Your task to perform on an android device: open app "WhatsApp Messenger" (install if not already installed), go to login, and select forgot password Image 0: 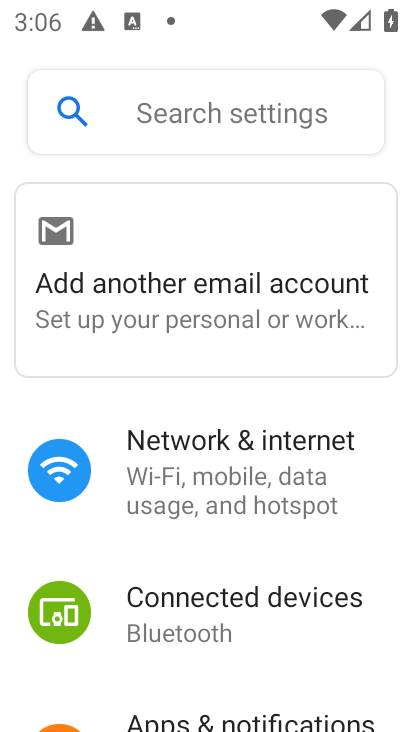
Step 0: press home button
Your task to perform on an android device: open app "WhatsApp Messenger" (install if not already installed), go to login, and select forgot password Image 1: 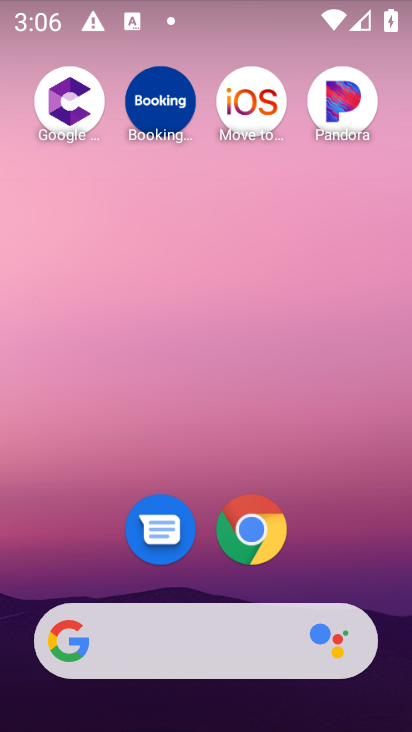
Step 1: drag from (338, 572) to (314, 7)
Your task to perform on an android device: open app "WhatsApp Messenger" (install if not already installed), go to login, and select forgot password Image 2: 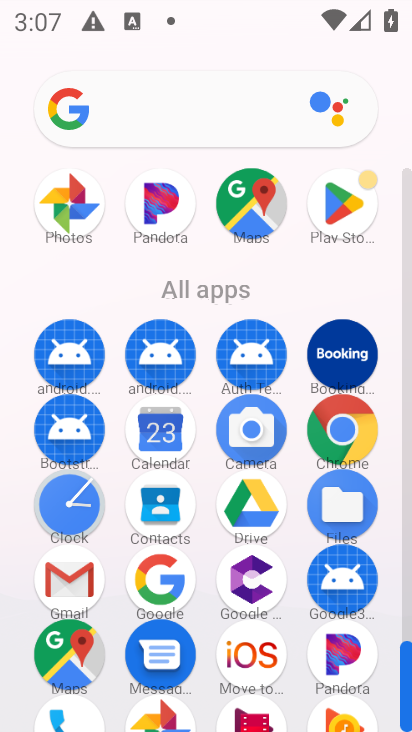
Step 2: click (327, 210)
Your task to perform on an android device: open app "WhatsApp Messenger" (install if not already installed), go to login, and select forgot password Image 3: 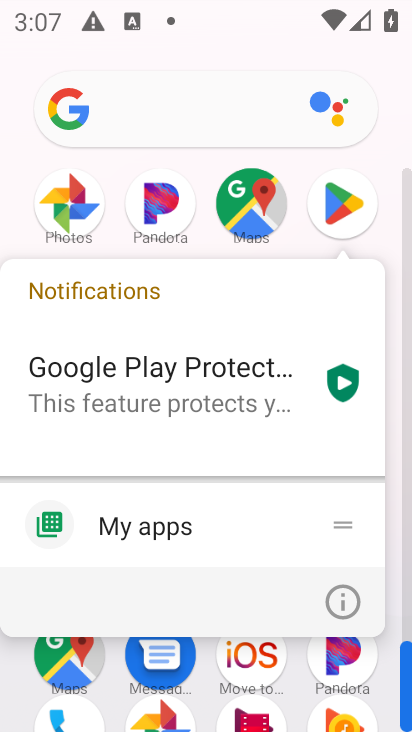
Step 3: click (327, 208)
Your task to perform on an android device: open app "WhatsApp Messenger" (install if not already installed), go to login, and select forgot password Image 4: 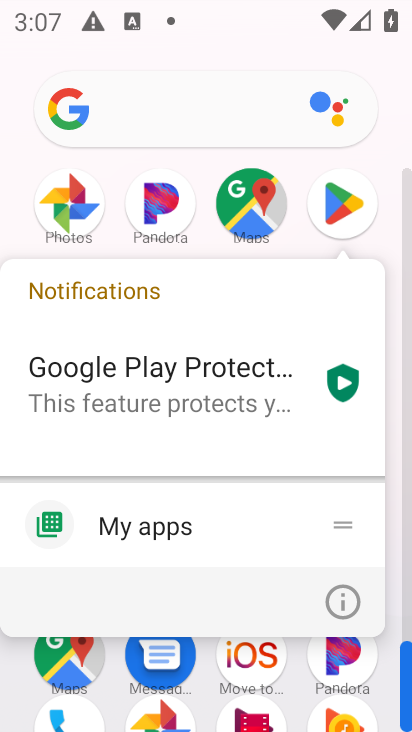
Step 4: click (346, 217)
Your task to perform on an android device: open app "WhatsApp Messenger" (install if not already installed), go to login, and select forgot password Image 5: 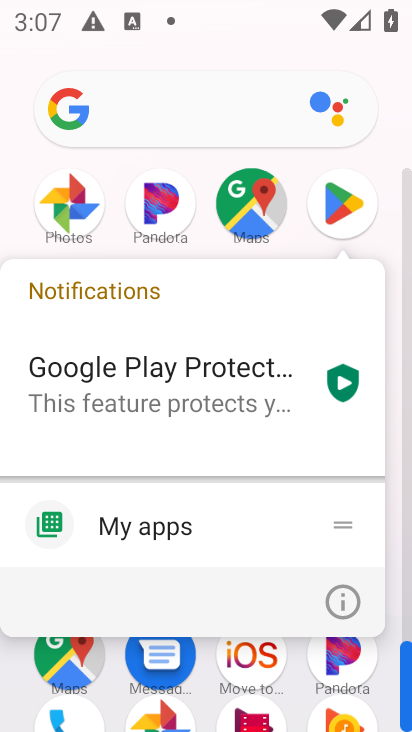
Step 5: click (347, 217)
Your task to perform on an android device: open app "WhatsApp Messenger" (install if not already installed), go to login, and select forgot password Image 6: 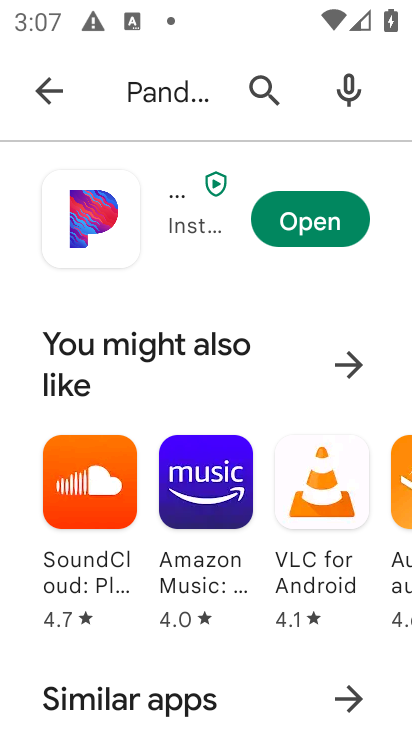
Step 6: press back button
Your task to perform on an android device: open app "WhatsApp Messenger" (install if not already installed), go to login, and select forgot password Image 7: 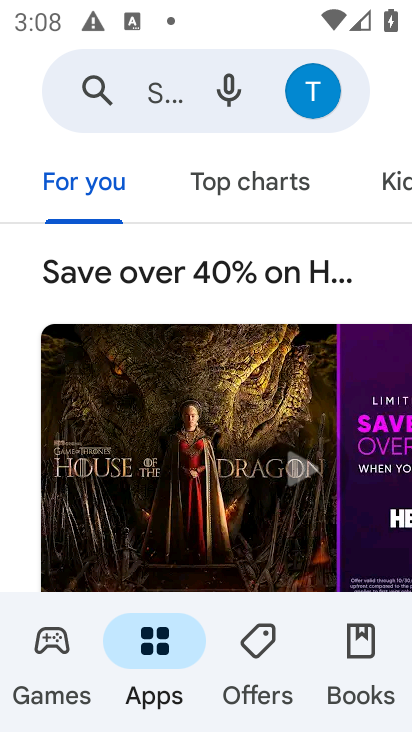
Step 7: click (152, 118)
Your task to perform on an android device: open app "WhatsApp Messenger" (install if not already installed), go to login, and select forgot password Image 8: 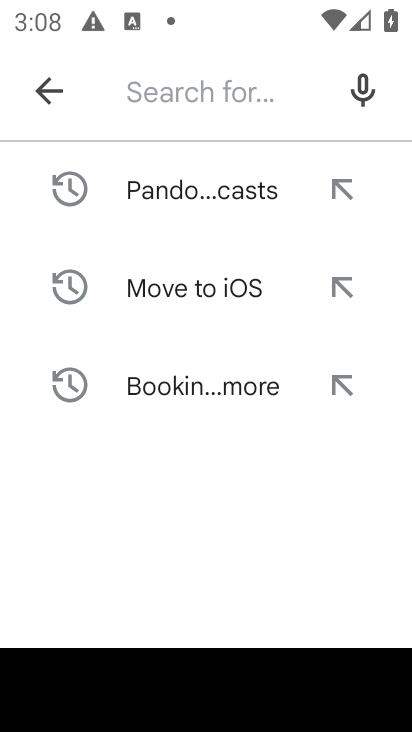
Step 8: type "WhatsApp Messenger"
Your task to perform on an android device: open app "WhatsApp Messenger" (install if not already installed), go to login, and select forgot password Image 9: 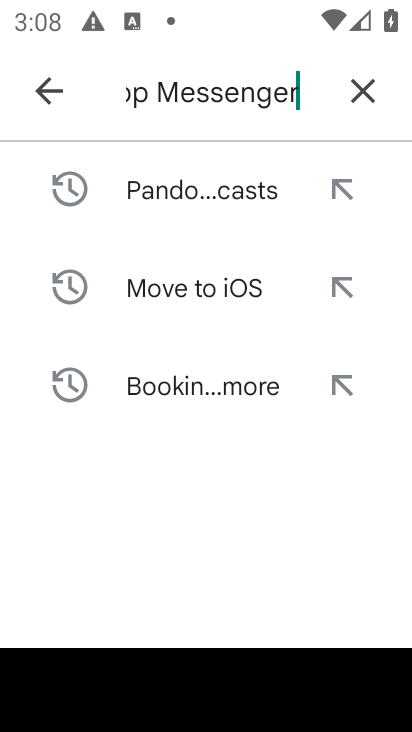
Step 9: press enter
Your task to perform on an android device: open app "WhatsApp Messenger" (install if not already installed), go to login, and select forgot password Image 10: 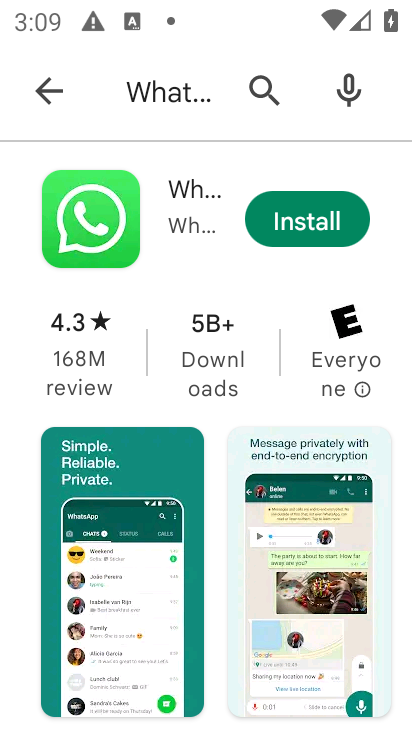
Step 10: click (289, 224)
Your task to perform on an android device: open app "WhatsApp Messenger" (install if not already installed), go to login, and select forgot password Image 11: 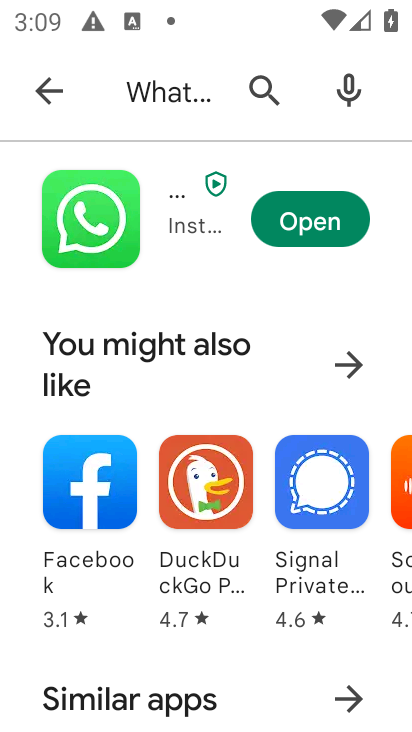
Step 11: click (320, 214)
Your task to perform on an android device: open app "WhatsApp Messenger" (install if not already installed), go to login, and select forgot password Image 12: 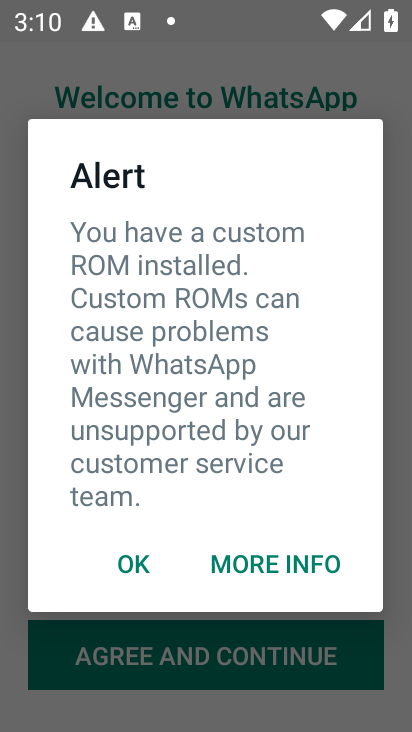
Step 12: click (135, 559)
Your task to perform on an android device: open app "WhatsApp Messenger" (install if not already installed), go to login, and select forgot password Image 13: 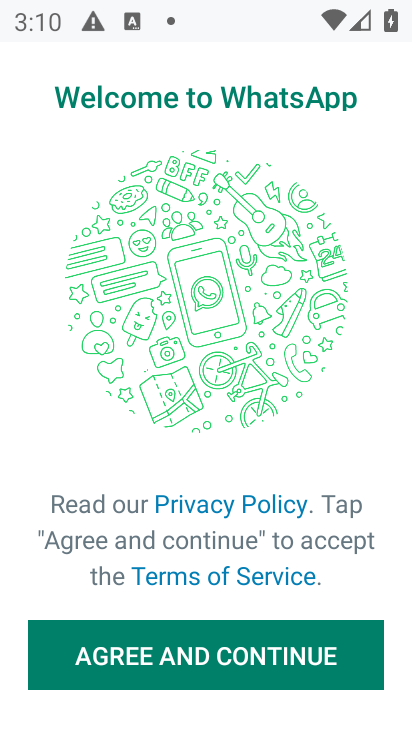
Step 13: click (188, 649)
Your task to perform on an android device: open app "WhatsApp Messenger" (install if not already installed), go to login, and select forgot password Image 14: 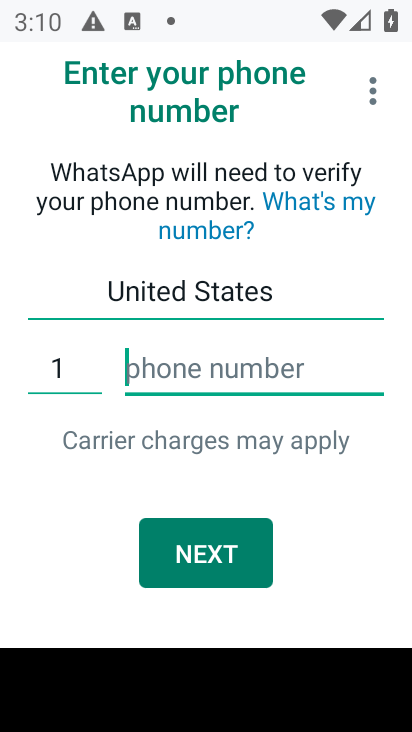
Step 14: task complete